Your task to perform on an android device: Play the last video I watched on Youtube Image 0: 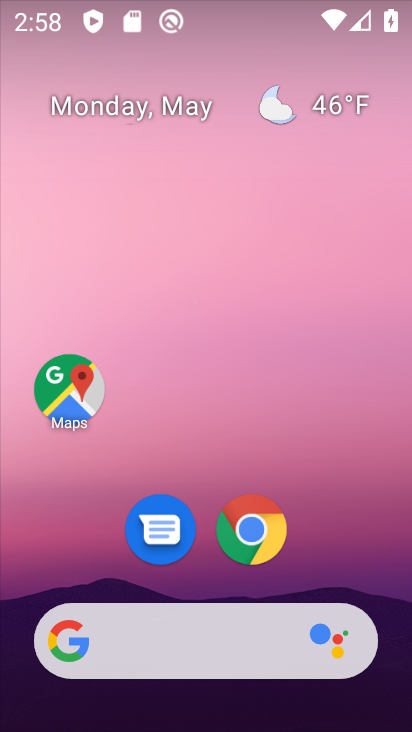
Step 0: drag from (375, 568) to (345, 185)
Your task to perform on an android device: Play the last video I watched on Youtube Image 1: 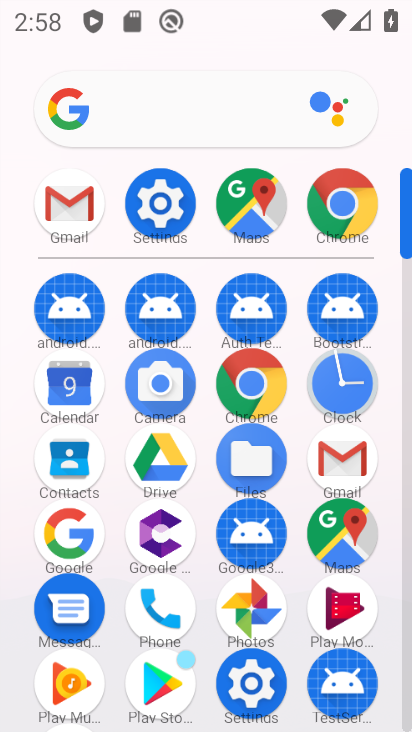
Step 1: drag from (295, 650) to (298, 319)
Your task to perform on an android device: Play the last video I watched on Youtube Image 2: 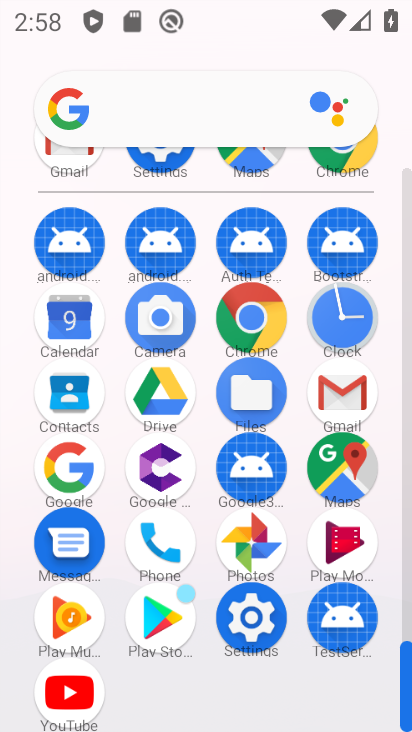
Step 2: click (62, 680)
Your task to perform on an android device: Play the last video I watched on Youtube Image 3: 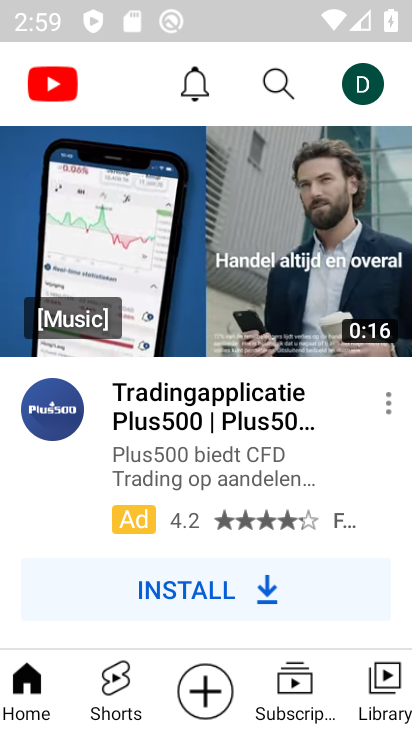
Step 3: click (395, 692)
Your task to perform on an android device: Play the last video I watched on Youtube Image 4: 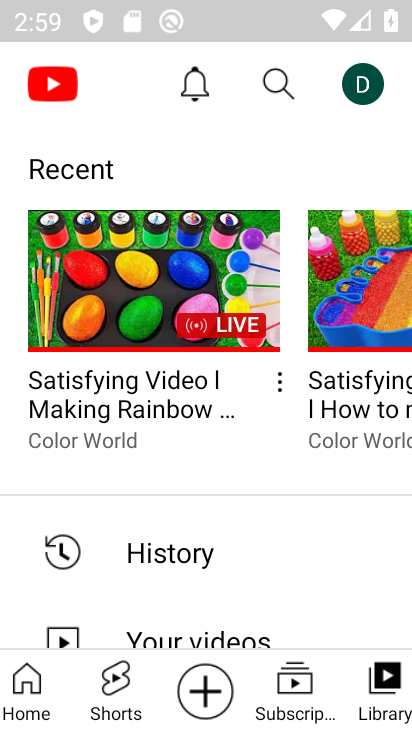
Step 4: task complete